Your task to perform on an android device: Go to display settings Image 0: 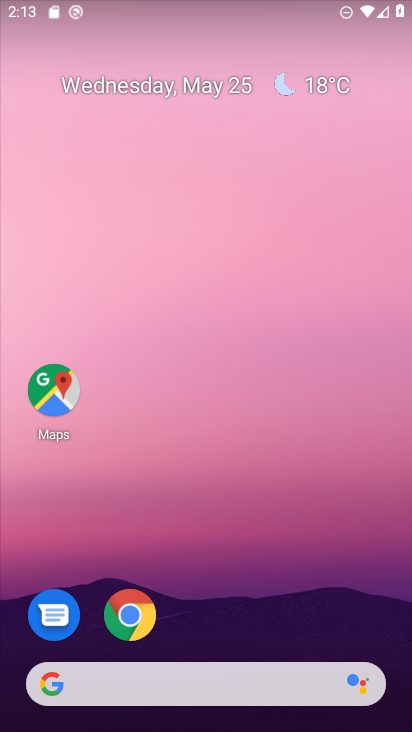
Step 0: drag from (243, 579) to (286, 15)
Your task to perform on an android device: Go to display settings Image 1: 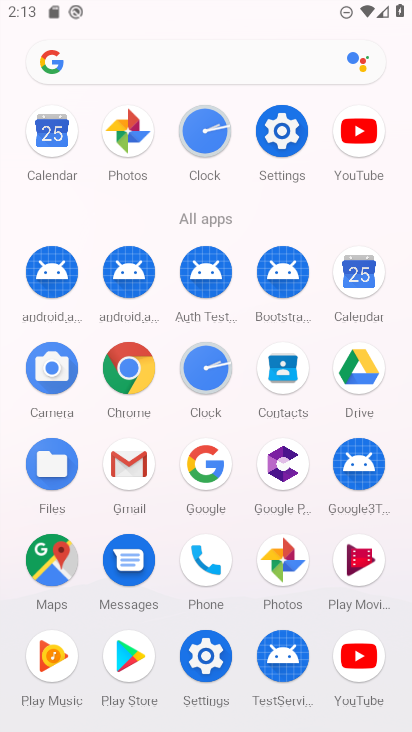
Step 1: click (282, 134)
Your task to perform on an android device: Go to display settings Image 2: 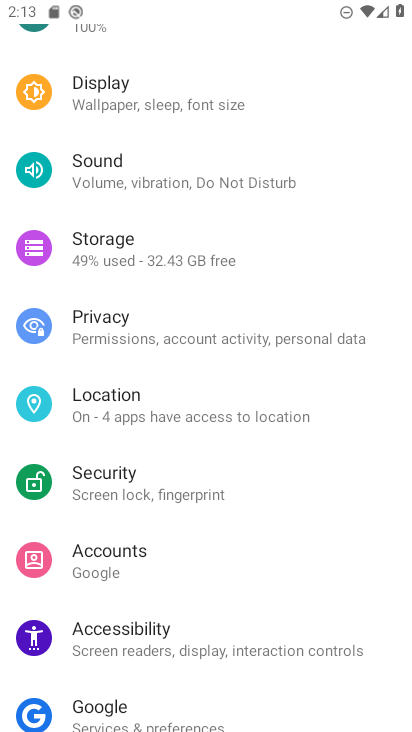
Step 2: click (204, 95)
Your task to perform on an android device: Go to display settings Image 3: 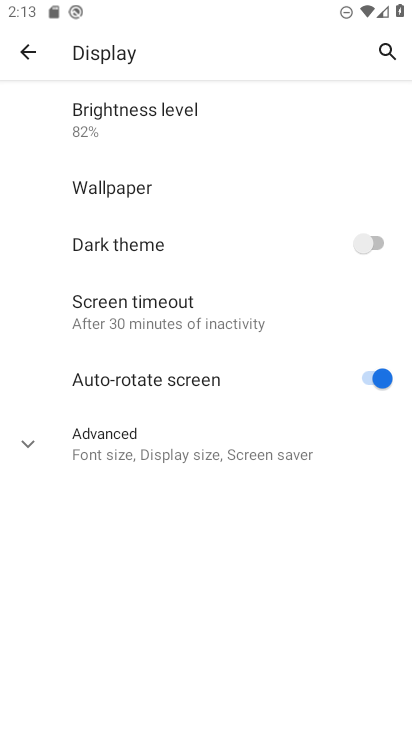
Step 3: task complete